Your task to perform on an android device: Open maps Image 0: 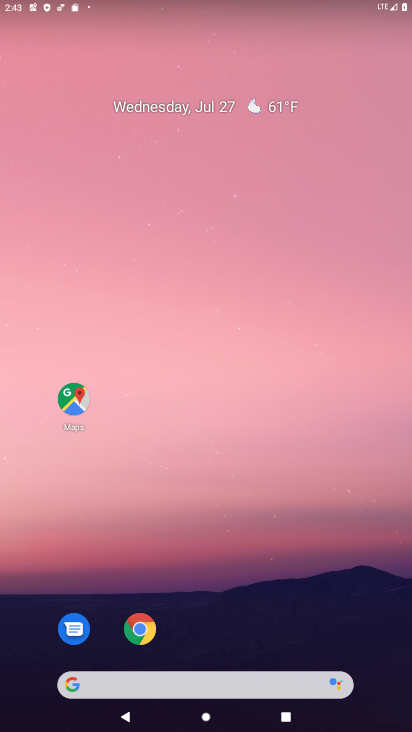
Step 0: click (74, 399)
Your task to perform on an android device: Open maps Image 1: 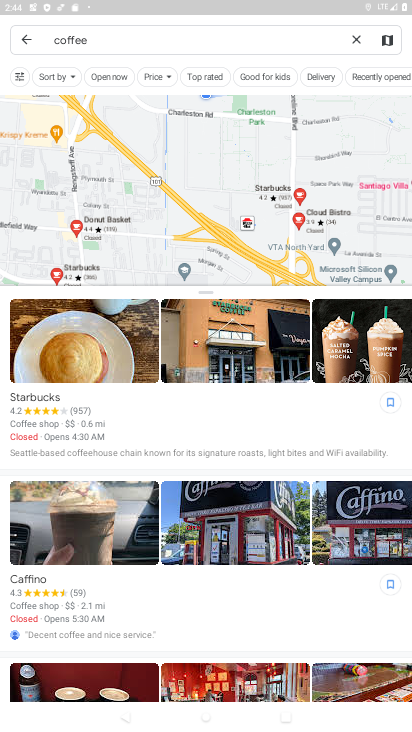
Step 1: task complete